Your task to perform on an android device: read, delete, or share a saved page in the chrome app Image 0: 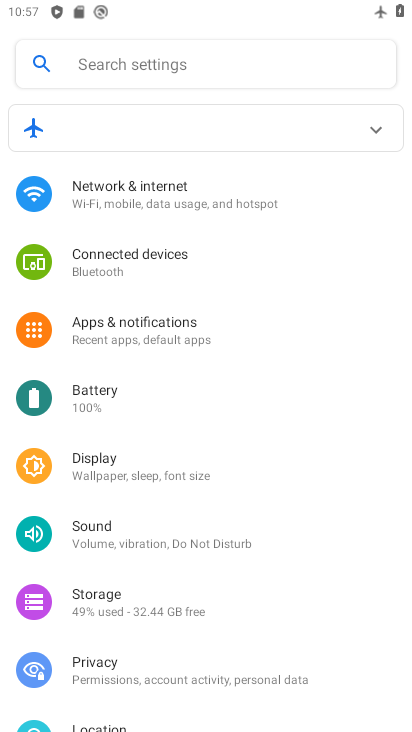
Step 0: press home button
Your task to perform on an android device: read, delete, or share a saved page in the chrome app Image 1: 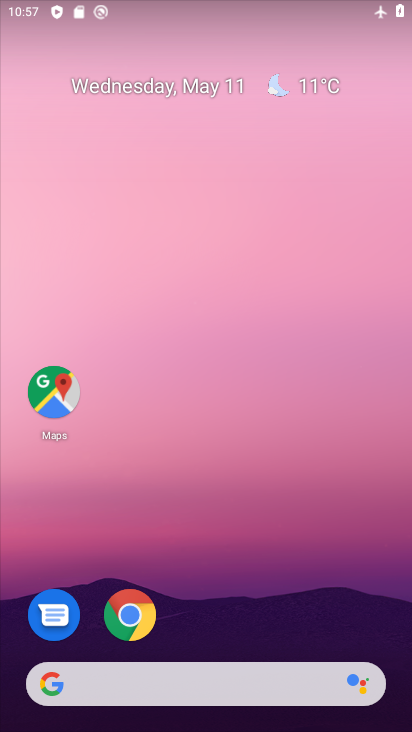
Step 1: click (126, 616)
Your task to perform on an android device: read, delete, or share a saved page in the chrome app Image 2: 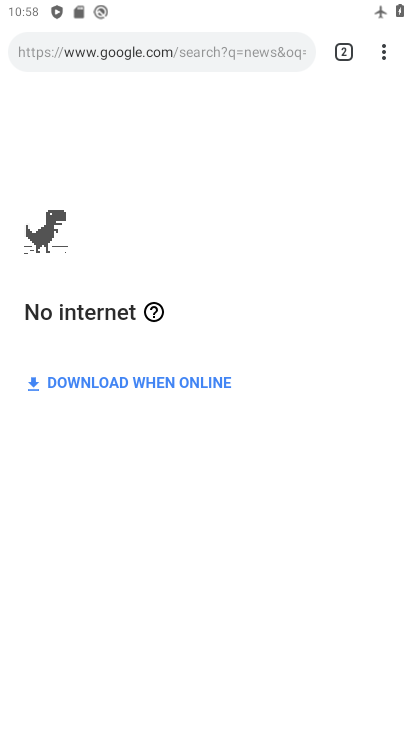
Step 2: click (389, 45)
Your task to perform on an android device: read, delete, or share a saved page in the chrome app Image 3: 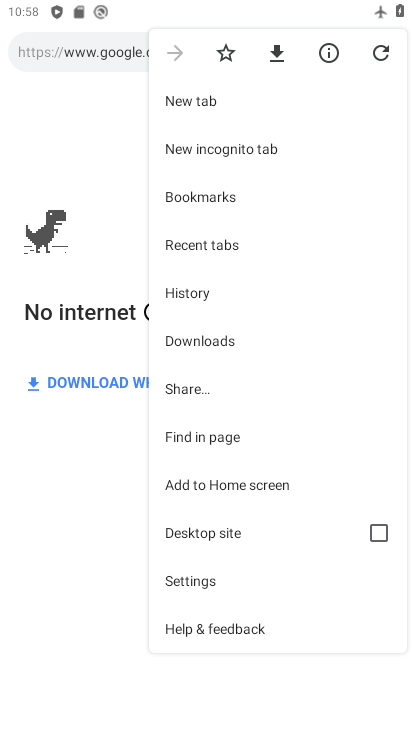
Step 3: click (209, 342)
Your task to perform on an android device: read, delete, or share a saved page in the chrome app Image 4: 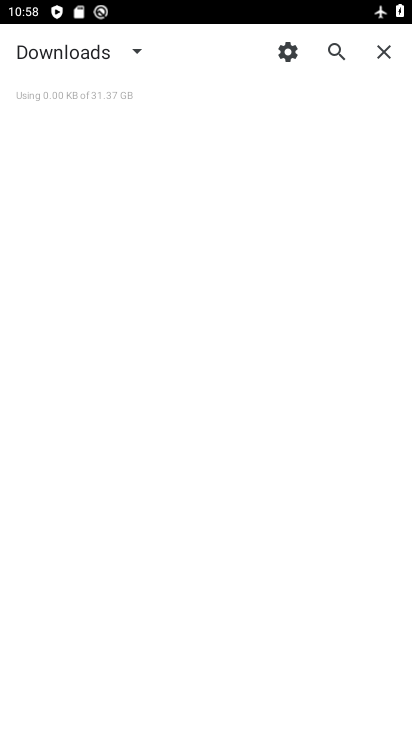
Step 4: task complete